Your task to perform on an android device: allow notifications from all sites in the chrome app Image 0: 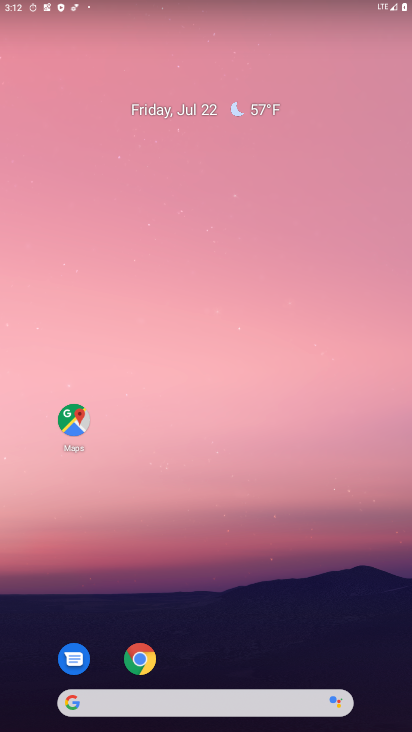
Step 0: click (141, 653)
Your task to perform on an android device: allow notifications from all sites in the chrome app Image 1: 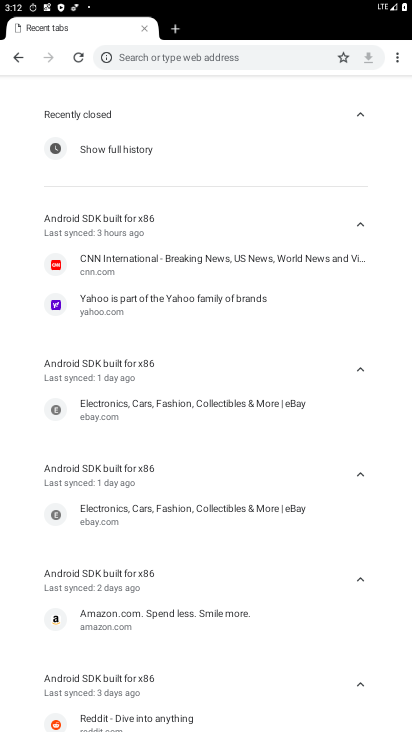
Step 1: click (399, 57)
Your task to perform on an android device: allow notifications from all sites in the chrome app Image 2: 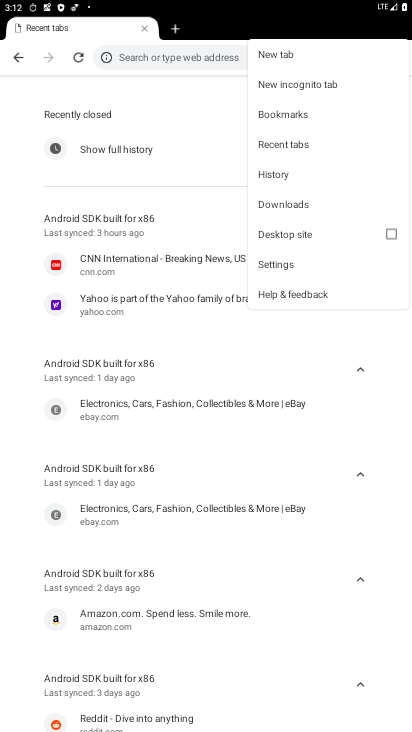
Step 2: click (291, 257)
Your task to perform on an android device: allow notifications from all sites in the chrome app Image 3: 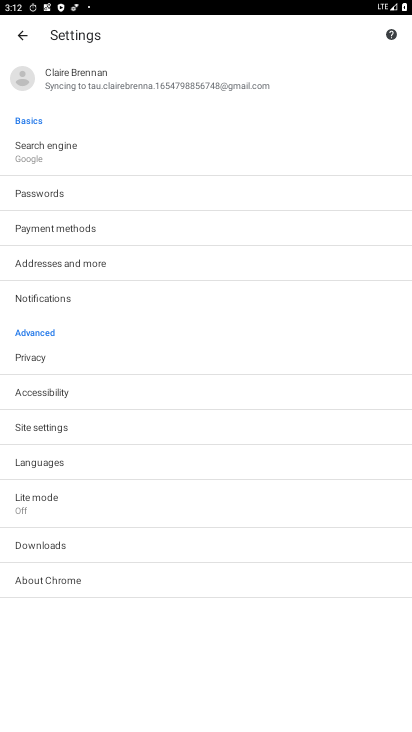
Step 3: click (51, 290)
Your task to perform on an android device: allow notifications from all sites in the chrome app Image 4: 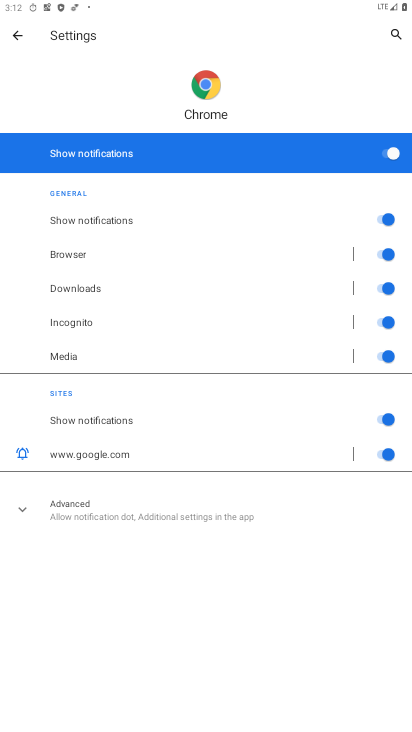
Step 4: task complete